Your task to perform on an android device: turn smart compose on in the gmail app Image 0: 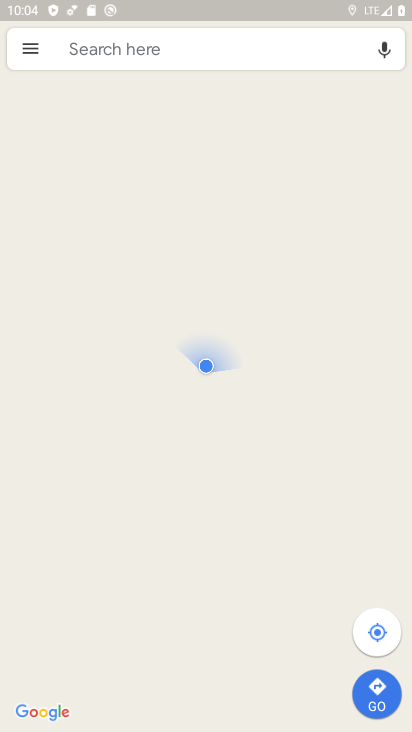
Step 0: press home button
Your task to perform on an android device: turn smart compose on in the gmail app Image 1: 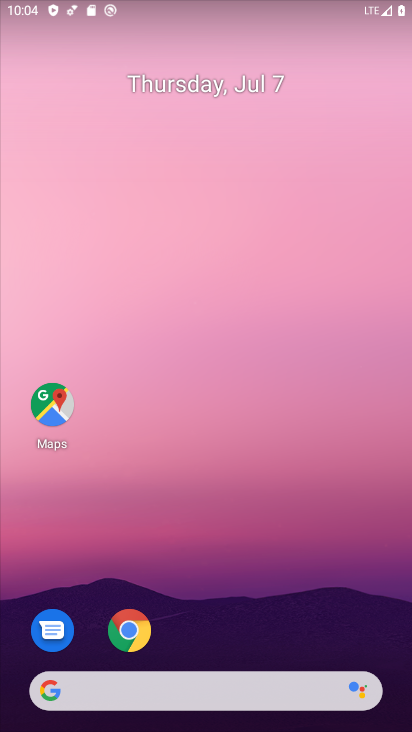
Step 1: drag from (214, 651) to (277, 268)
Your task to perform on an android device: turn smart compose on in the gmail app Image 2: 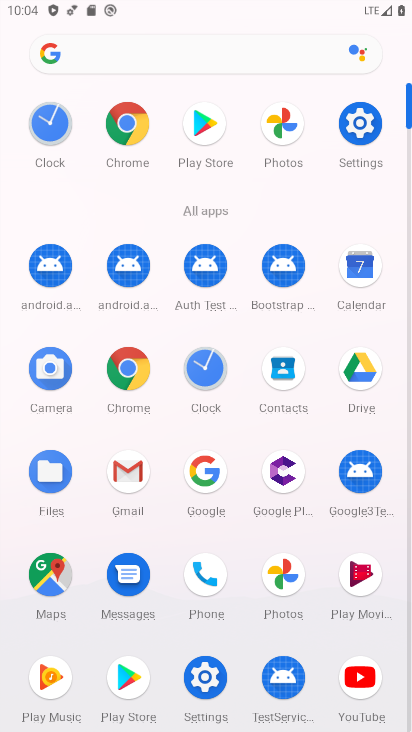
Step 2: click (129, 470)
Your task to perform on an android device: turn smart compose on in the gmail app Image 3: 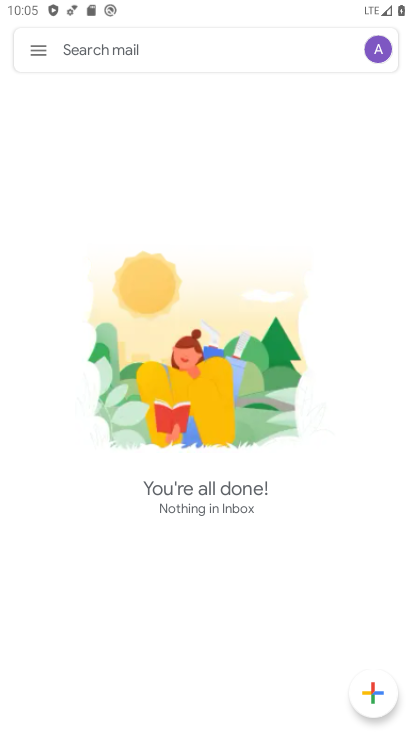
Step 3: click (25, 45)
Your task to perform on an android device: turn smart compose on in the gmail app Image 4: 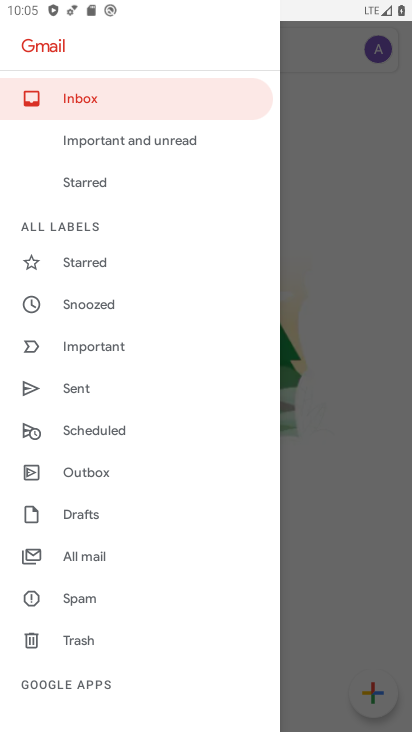
Step 4: drag from (134, 661) to (156, 210)
Your task to perform on an android device: turn smart compose on in the gmail app Image 5: 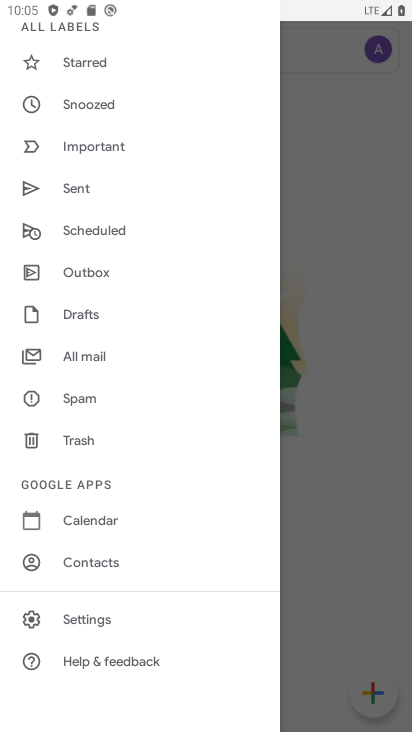
Step 5: click (114, 615)
Your task to perform on an android device: turn smart compose on in the gmail app Image 6: 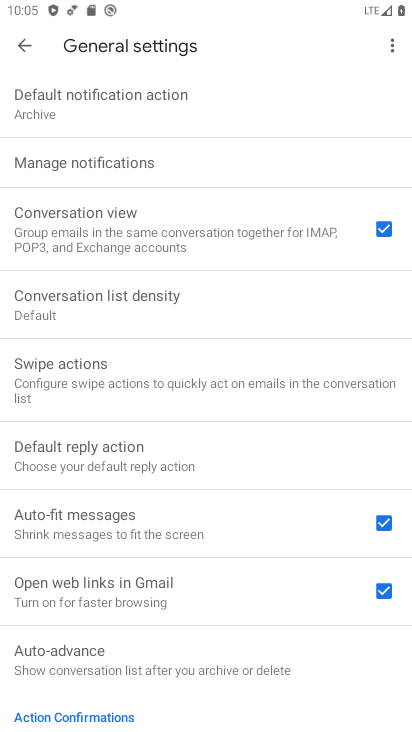
Step 6: drag from (176, 663) to (198, 330)
Your task to perform on an android device: turn smart compose on in the gmail app Image 7: 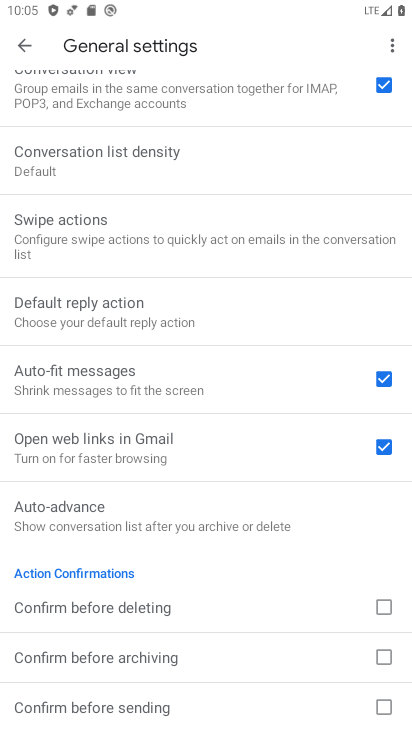
Step 7: click (21, 54)
Your task to perform on an android device: turn smart compose on in the gmail app Image 8: 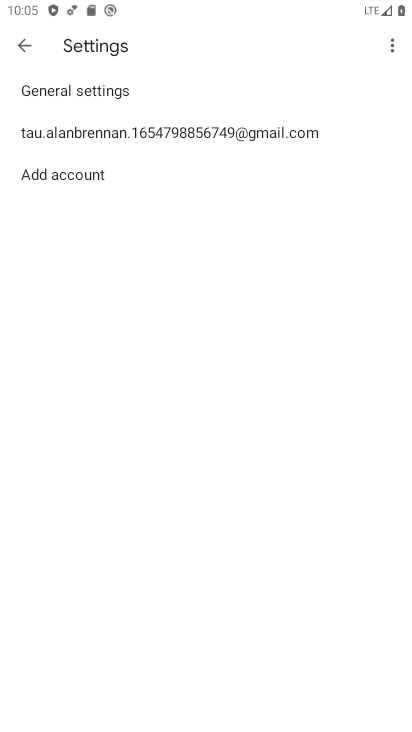
Step 8: click (106, 138)
Your task to perform on an android device: turn smart compose on in the gmail app Image 9: 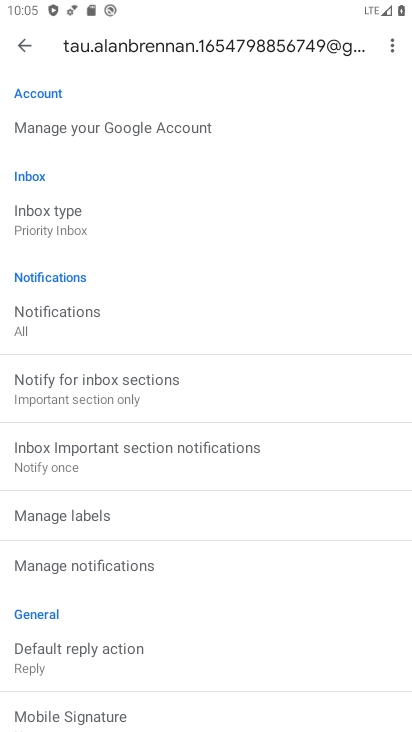
Step 9: task complete